Your task to perform on an android device: Open the stopwatch Image 0: 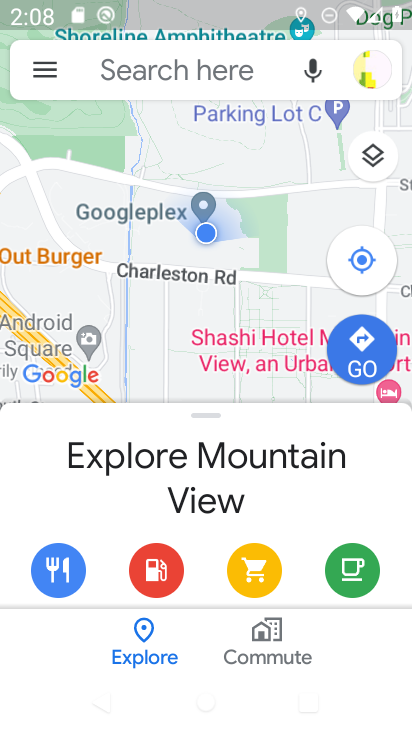
Step 0: press back button
Your task to perform on an android device: Open the stopwatch Image 1: 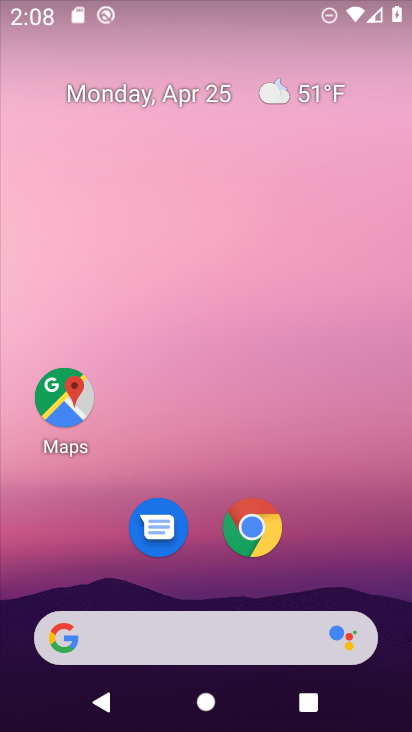
Step 1: drag from (314, 489) to (227, 61)
Your task to perform on an android device: Open the stopwatch Image 2: 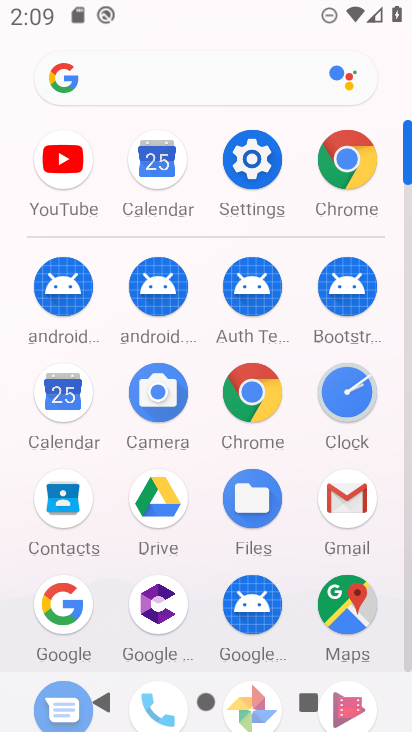
Step 2: drag from (6, 545) to (9, 259)
Your task to perform on an android device: Open the stopwatch Image 3: 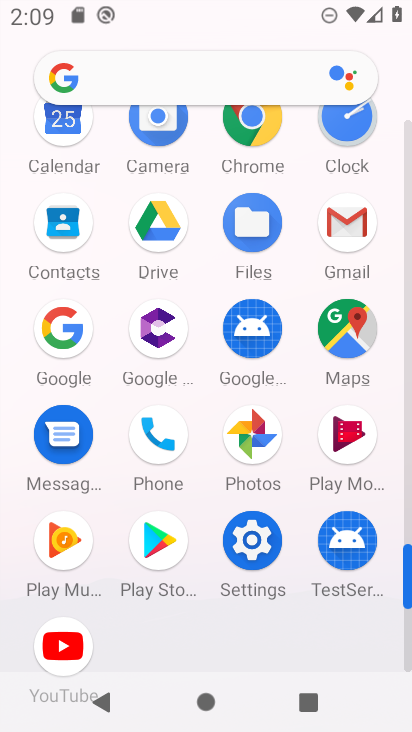
Step 3: click (347, 120)
Your task to perform on an android device: Open the stopwatch Image 4: 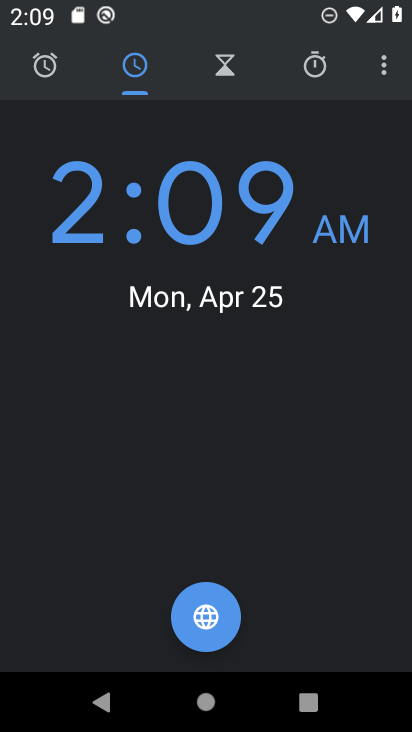
Step 4: click (384, 65)
Your task to perform on an android device: Open the stopwatch Image 5: 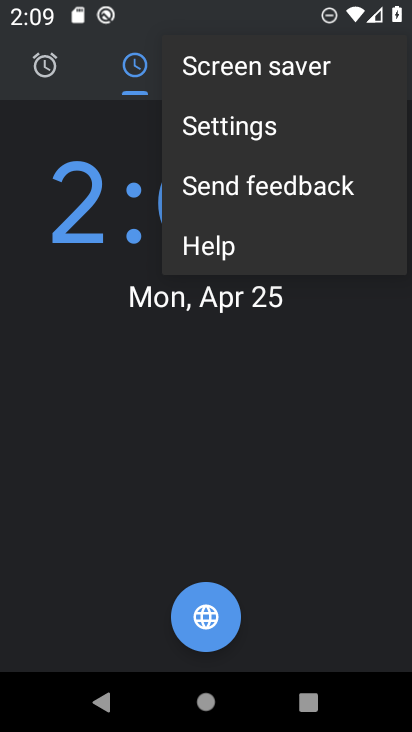
Step 5: click (289, 133)
Your task to perform on an android device: Open the stopwatch Image 6: 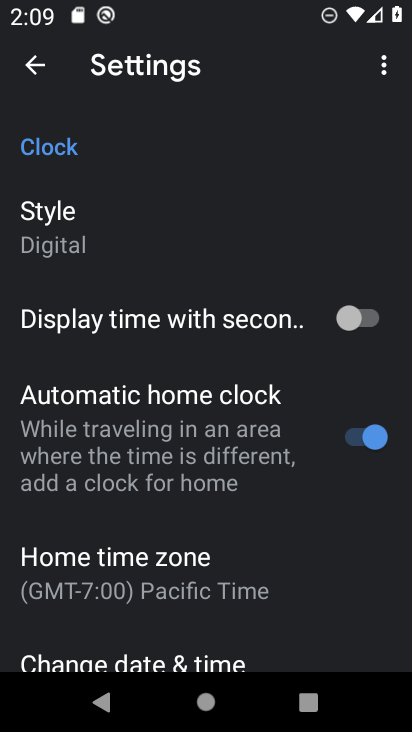
Step 6: drag from (187, 552) to (204, 221)
Your task to perform on an android device: Open the stopwatch Image 7: 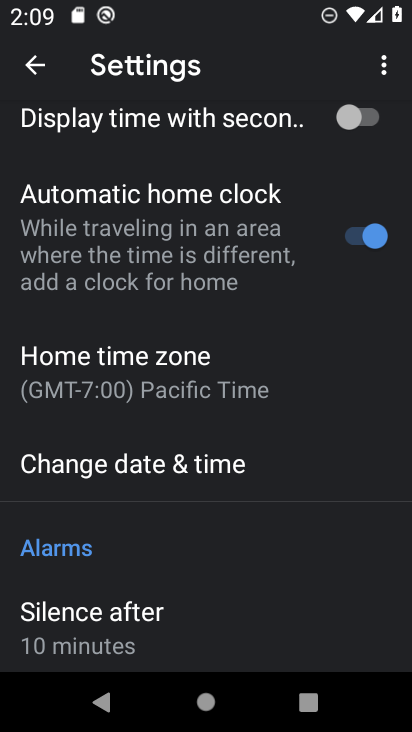
Step 7: drag from (189, 492) to (192, 238)
Your task to perform on an android device: Open the stopwatch Image 8: 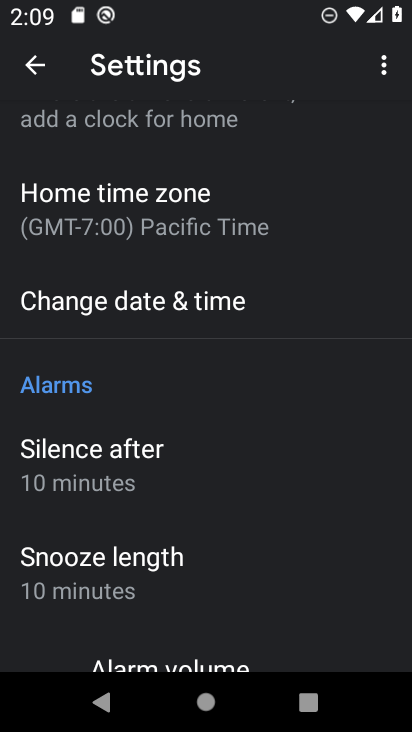
Step 8: drag from (183, 191) to (188, 407)
Your task to perform on an android device: Open the stopwatch Image 9: 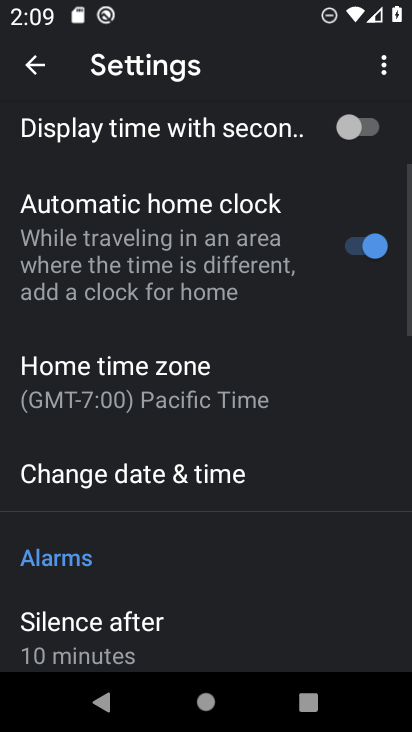
Step 9: click (27, 71)
Your task to perform on an android device: Open the stopwatch Image 10: 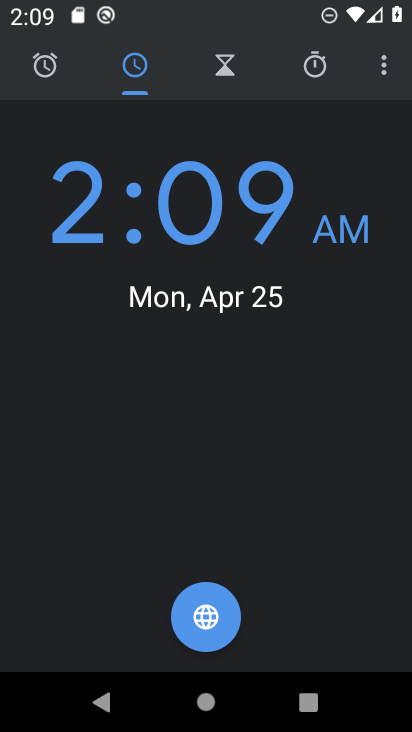
Step 10: click (308, 59)
Your task to perform on an android device: Open the stopwatch Image 11: 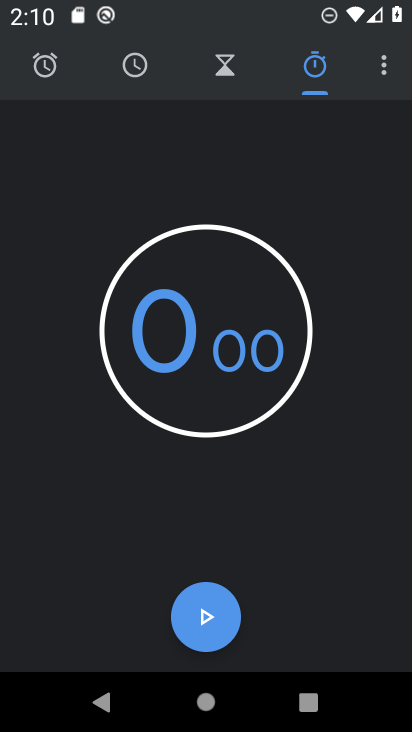
Step 11: task complete